Your task to perform on an android device: Open wifi settings Image 0: 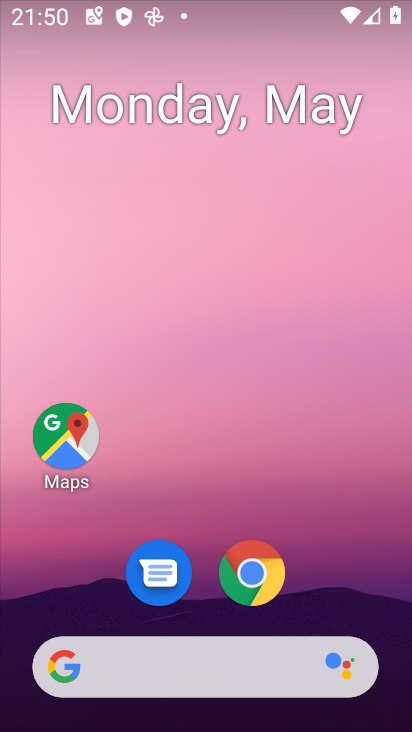
Step 0: drag from (363, 583) to (327, 151)
Your task to perform on an android device: Open wifi settings Image 1: 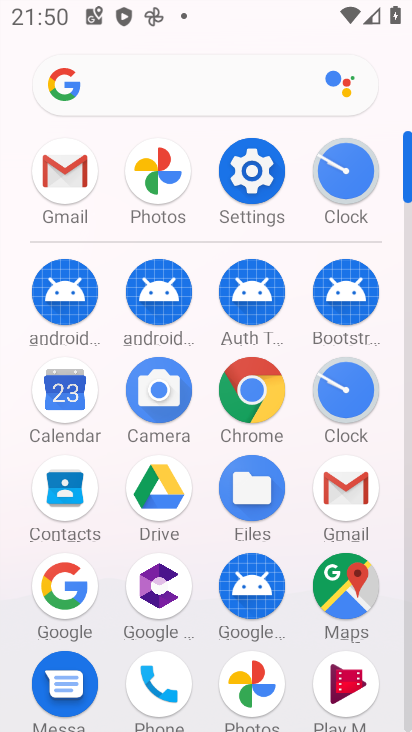
Step 1: click (263, 200)
Your task to perform on an android device: Open wifi settings Image 2: 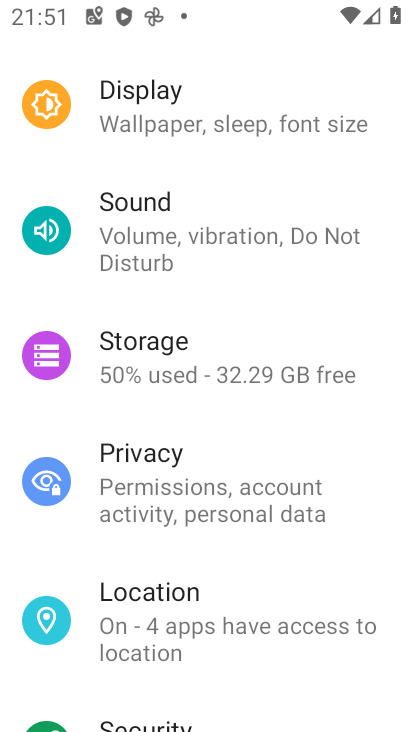
Step 2: drag from (242, 290) to (254, 689)
Your task to perform on an android device: Open wifi settings Image 3: 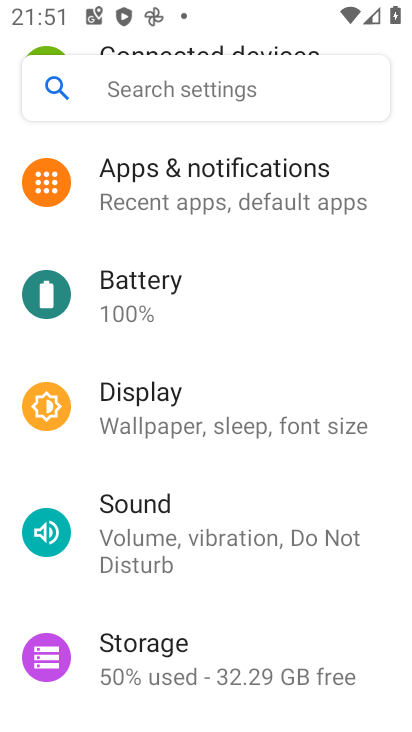
Step 3: drag from (215, 227) to (171, 436)
Your task to perform on an android device: Open wifi settings Image 4: 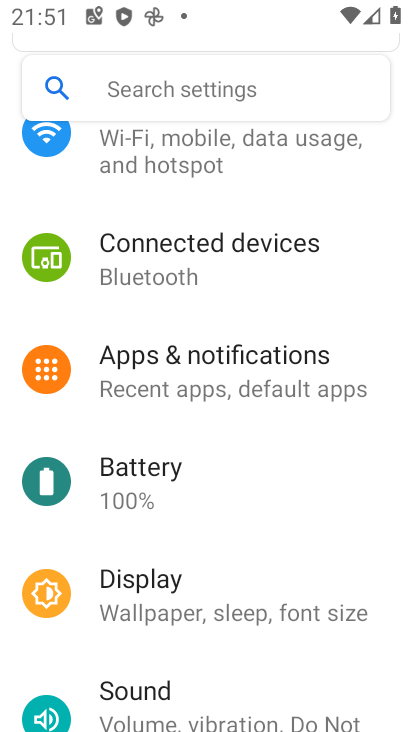
Step 4: click (228, 205)
Your task to perform on an android device: Open wifi settings Image 5: 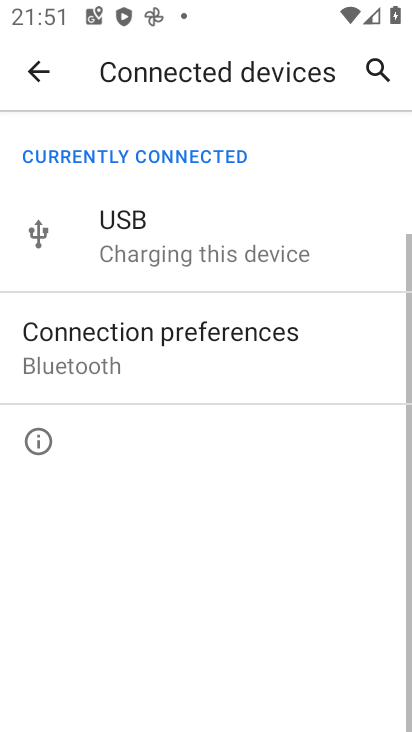
Step 5: click (31, 64)
Your task to perform on an android device: Open wifi settings Image 6: 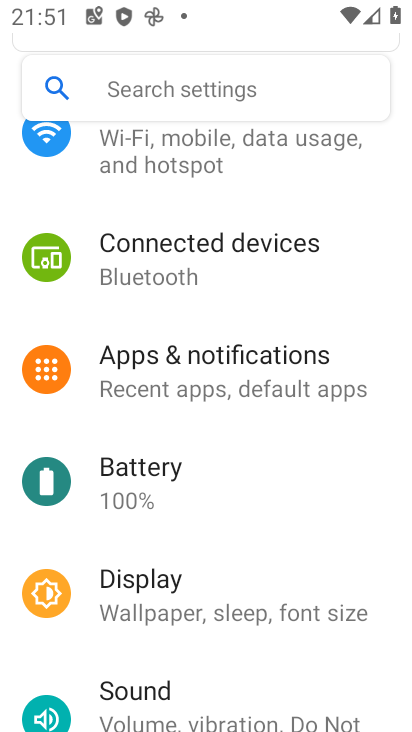
Step 6: click (137, 144)
Your task to perform on an android device: Open wifi settings Image 7: 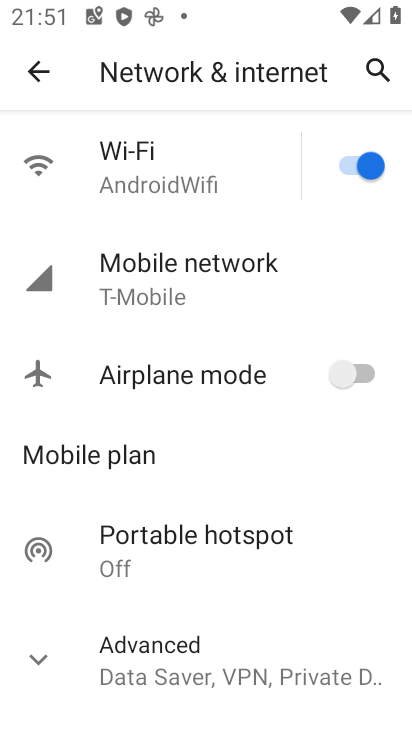
Step 7: task complete